Your task to perform on an android device: Open eBay Image 0: 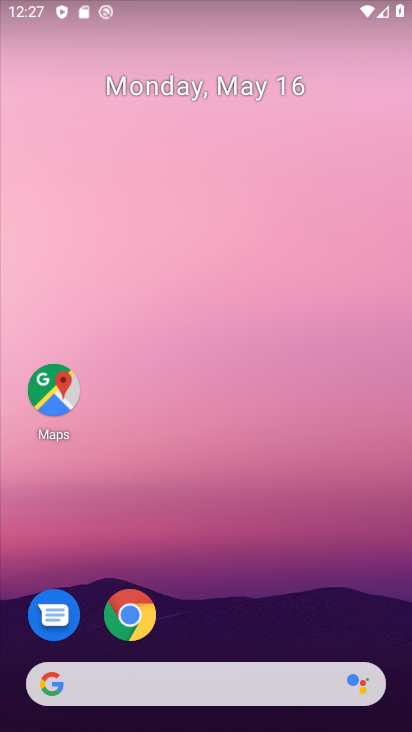
Step 0: click (124, 621)
Your task to perform on an android device: Open eBay Image 1: 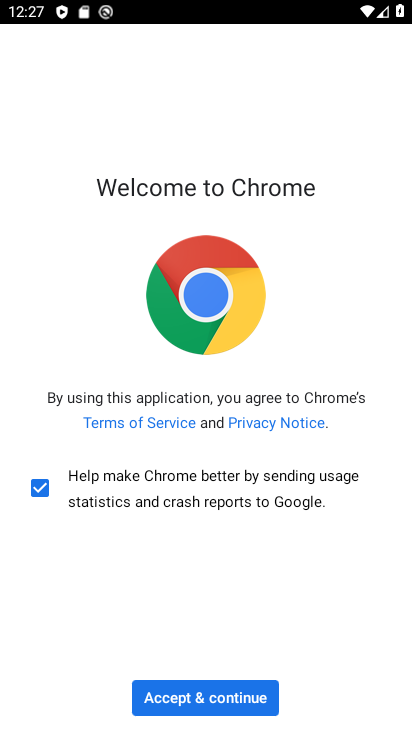
Step 1: click (216, 696)
Your task to perform on an android device: Open eBay Image 2: 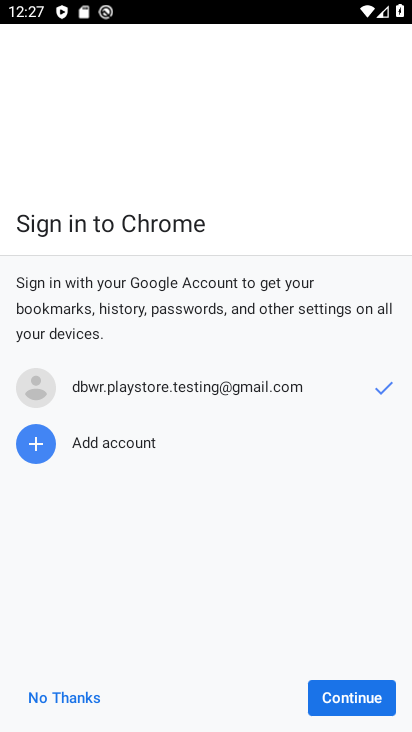
Step 2: click (362, 709)
Your task to perform on an android device: Open eBay Image 3: 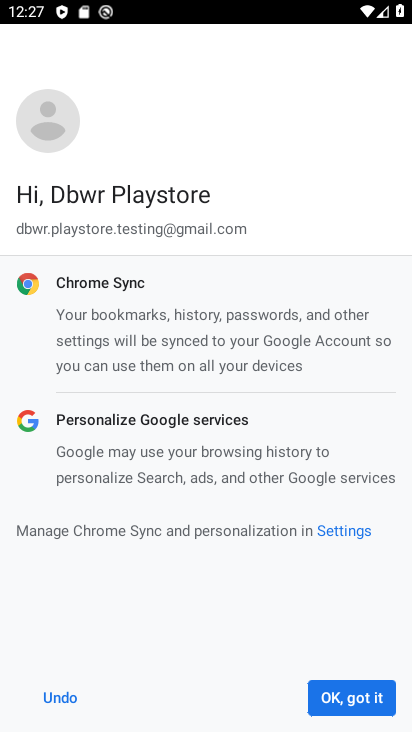
Step 3: click (358, 707)
Your task to perform on an android device: Open eBay Image 4: 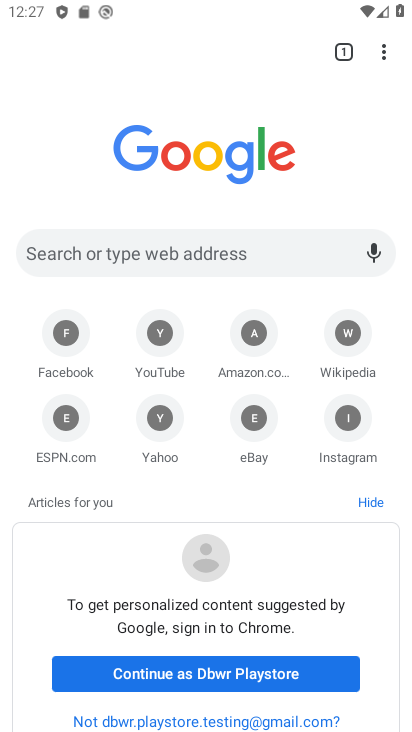
Step 4: click (257, 50)
Your task to perform on an android device: Open eBay Image 5: 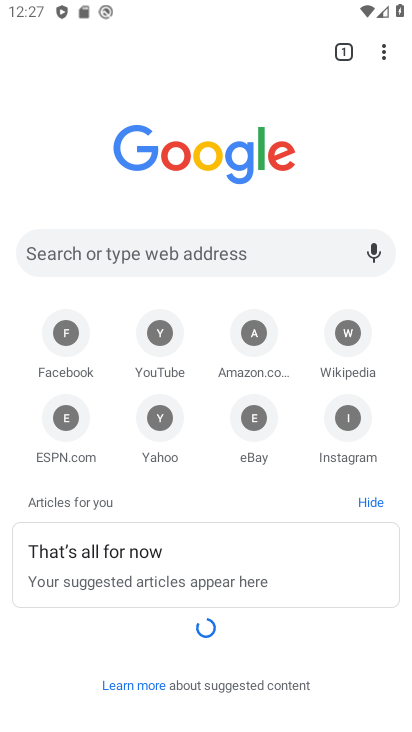
Step 5: click (253, 423)
Your task to perform on an android device: Open eBay Image 6: 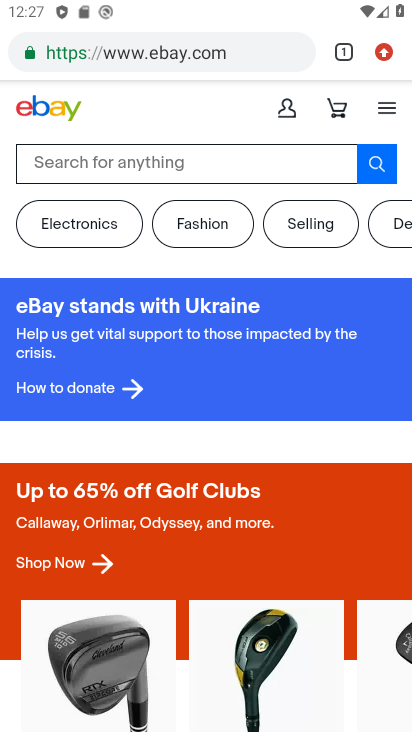
Step 6: task complete